Your task to perform on an android device: Open Chrome and go to settings Image 0: 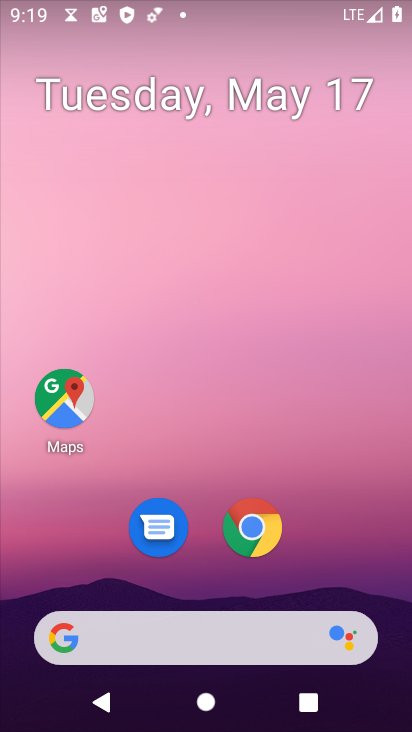
Step 0: press home button
Your task to perform on an android device: Open Chrome and go to settings Image 1: 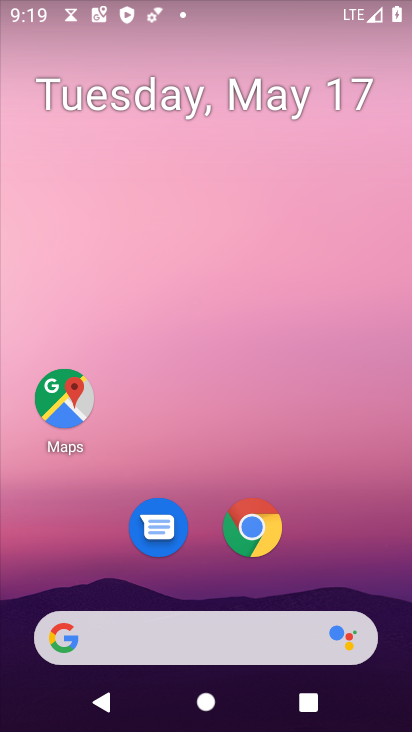
Step 1: click (242, 527)
Your task to perform on an android device: Open Chrome and go to settings Image 2: 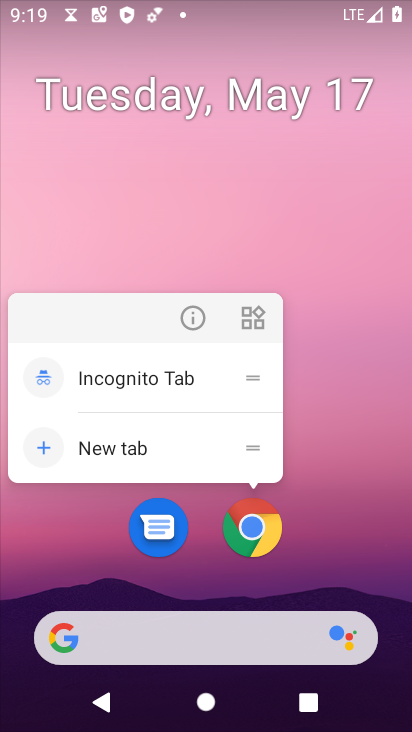
Step 2: click (267, 532)
Your task to perform on an android device: Open Chrome and go to settings Image 3: 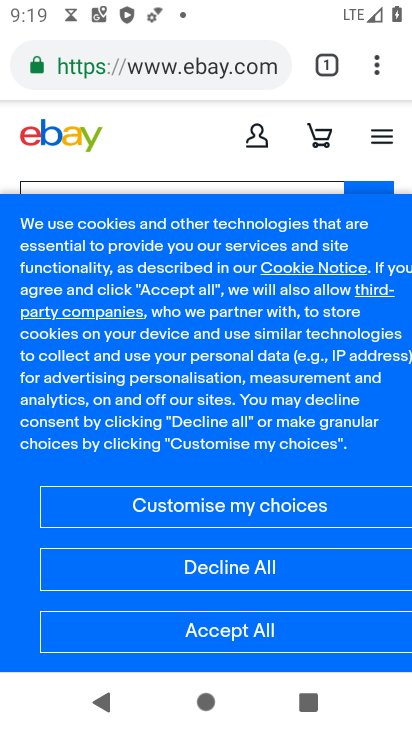
Step 3: task complete